Your task to perform on an android device: Open internet settings Image 0: 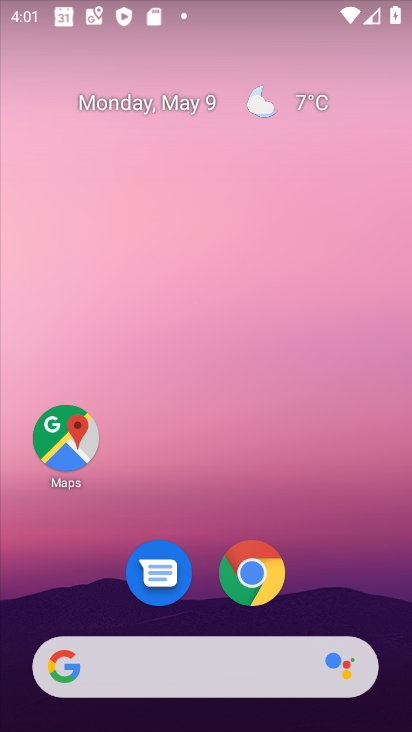
Step 0: drag from (357, 628) to (412, 99)
Your task to perform on an android device: Open internet settings Image 1: 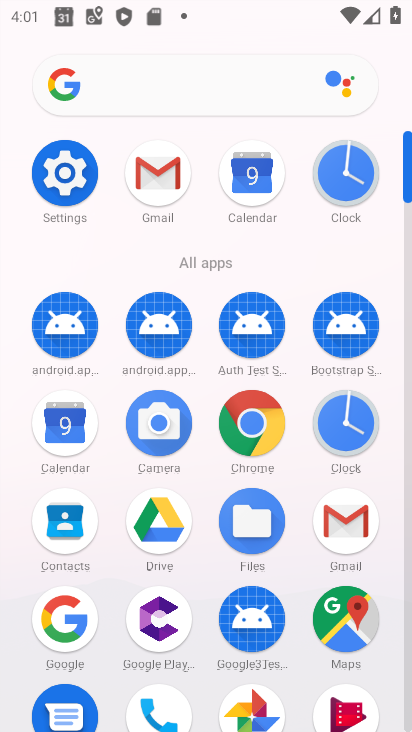
Step 1: click (49, 180)
Your task to perform on an android device: Open internet settings Image 2: 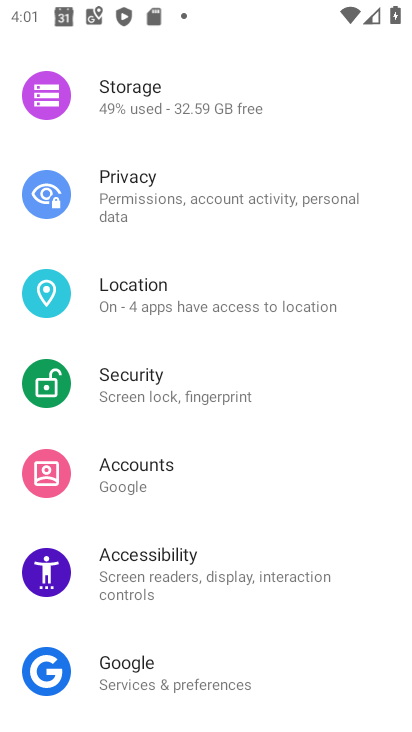
Step 2: drag from (307, 206) to (305, 448)
Your task to perform on an android device: Open internet settings Image 3: 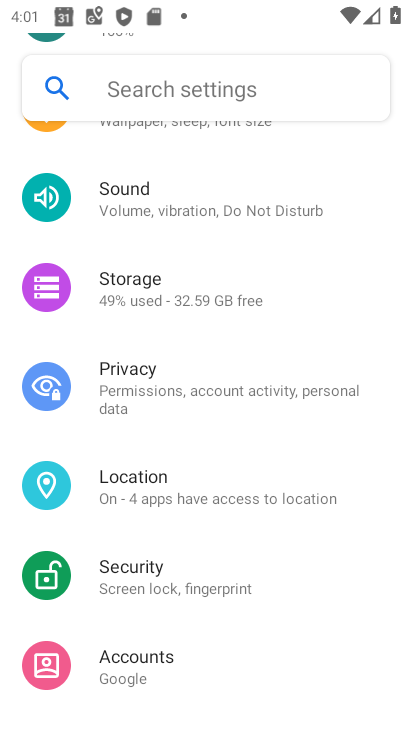
Step 3: drag from (189, 237) to (186, 477)
Your task to perform on an android device: Open internet settings Image 4: 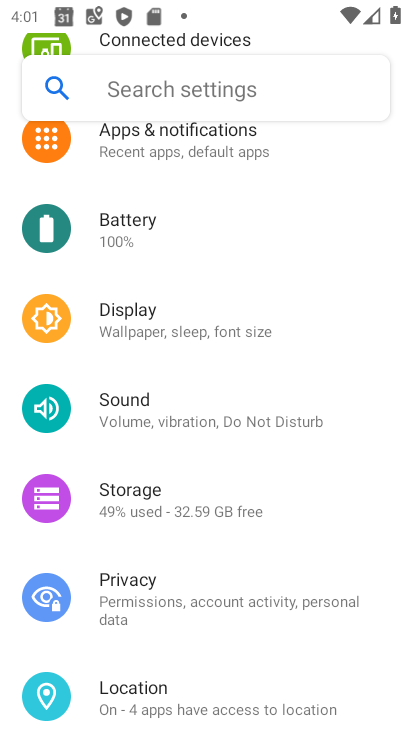
Step 4: drag from (161, 264) to (171, 565)
Your task to perform on an android device: Open internet settings Image 5: 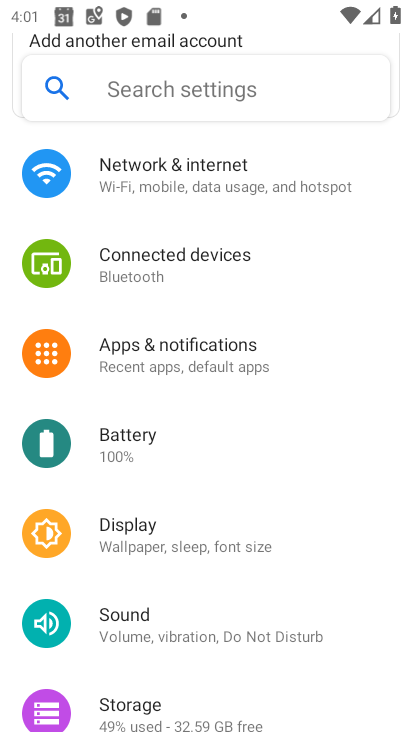
Step 5: click (180, 171)
Your task to perform on an android device: Open internet settings Image 6: 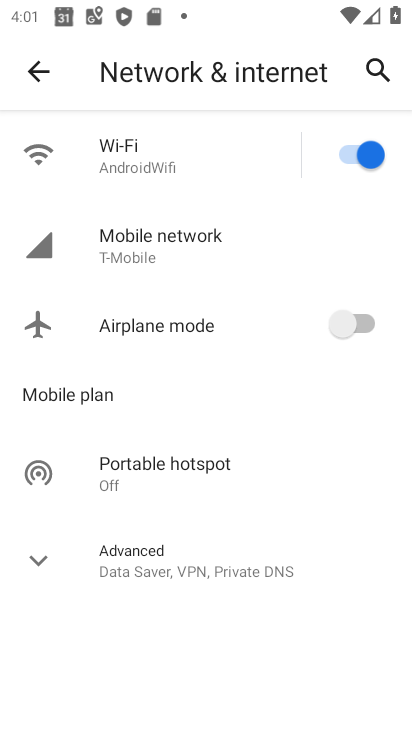
Step 6: click (35, 581)
Your task to perform on an android device: Open internet settings Image 7: 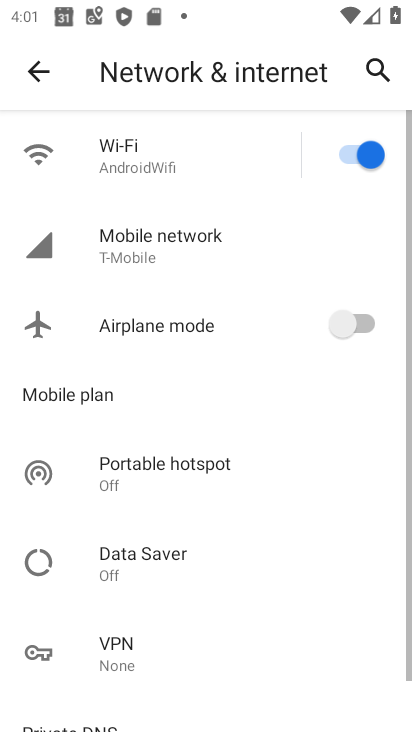
Step 7: task complete